Your task to perform on an android device: open sync settings in chrome Image 0: 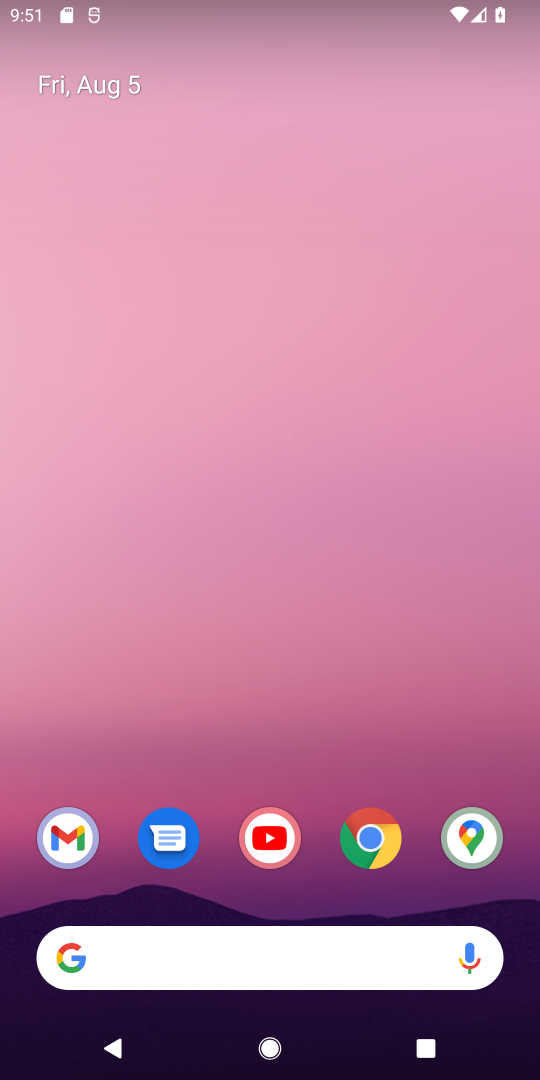
Step 0: click (365, 835)
Your task to perform on an android device: open sync settings in chrome Image 1: 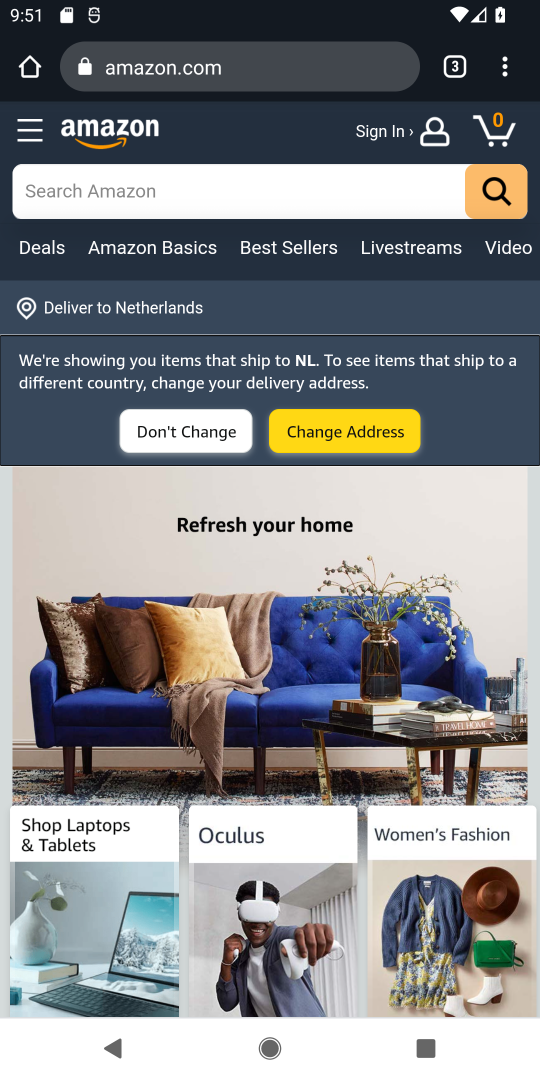
Step 1: click (501, 71)
Your task to perform on an android device: open sync settings in chrome Image 2: 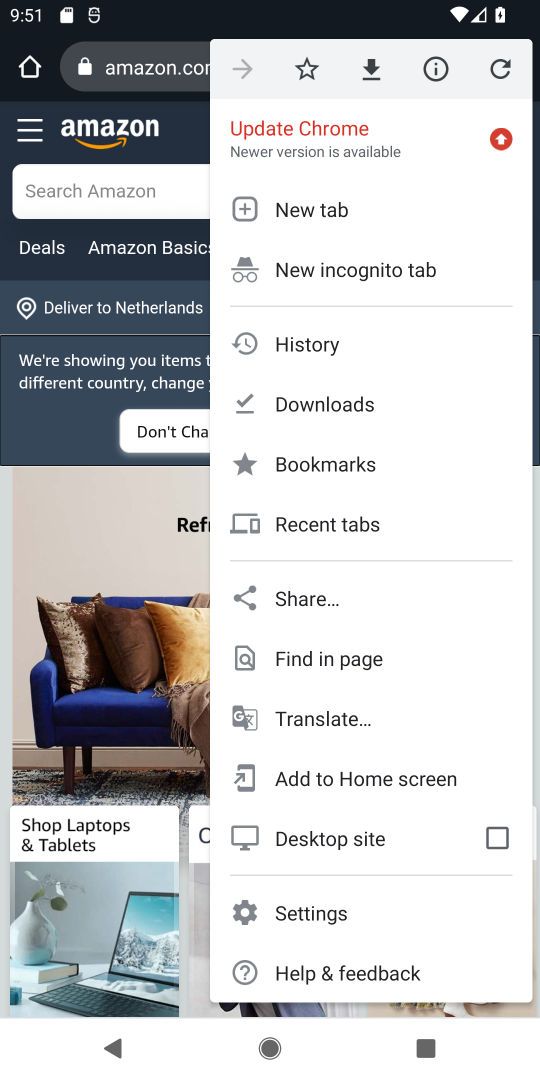
Step 2: click (300, 908)
Your task to perform on an android device: open sync settings in chrome Image 3: 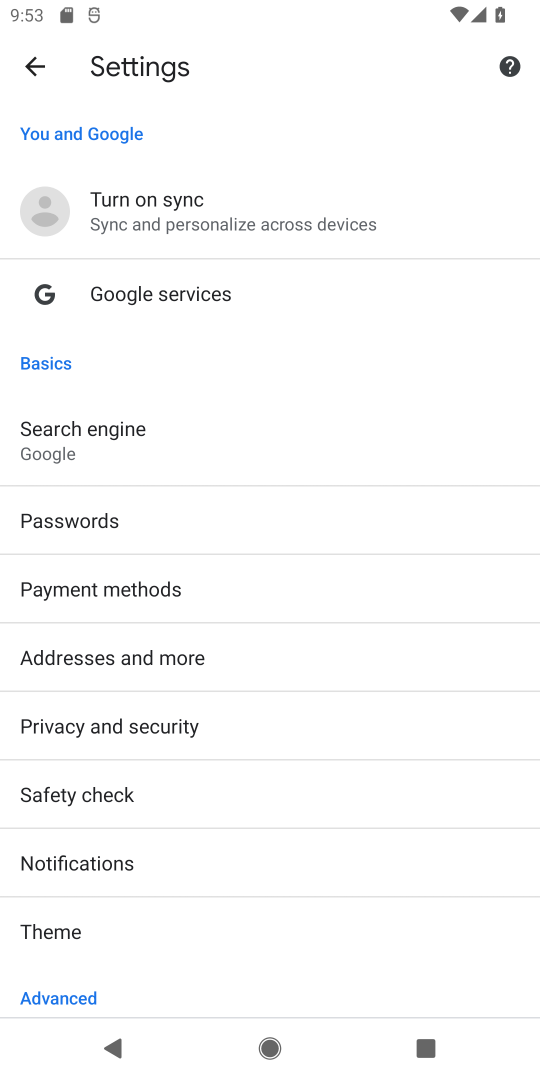
Step 3: task complete